Your task to perform on an android device: turn off translation in the chrome app Image 0: 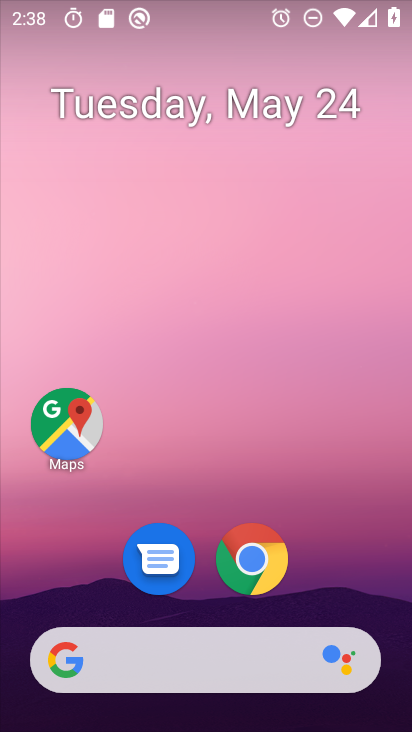
Step 0: click (246, 559)
Your task to perform on an android device: turn off translation in the chrome app Image 1: 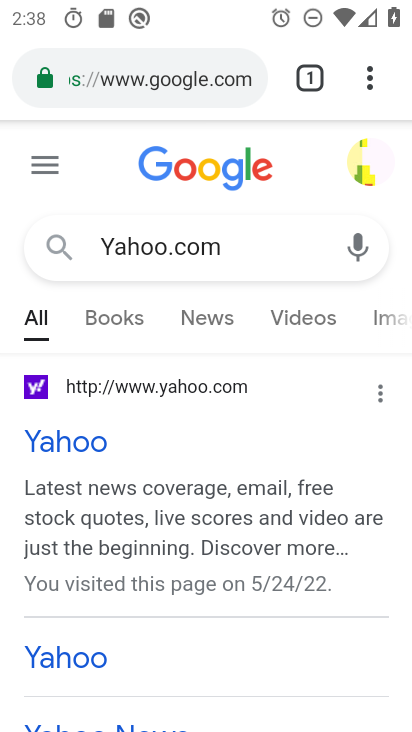
Step 1: click (372, 67)
Your task to perform on an android device: turn off translation in the chrome app Image 2: 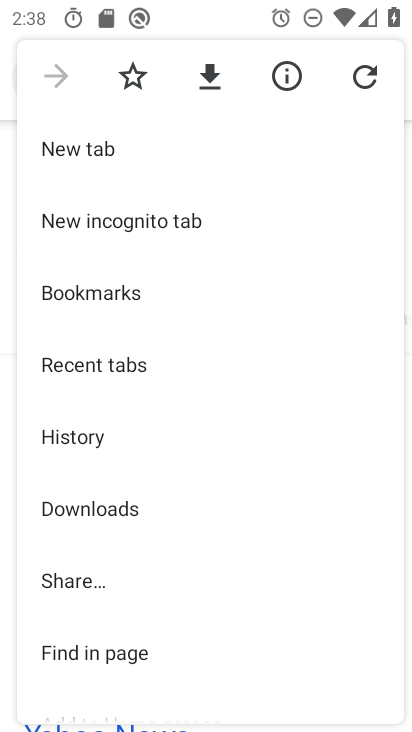
Step 2: drag from (230, 652) to (236, 336)
Your task to perform on an android device: turn off translation in the chrome app Image 3: 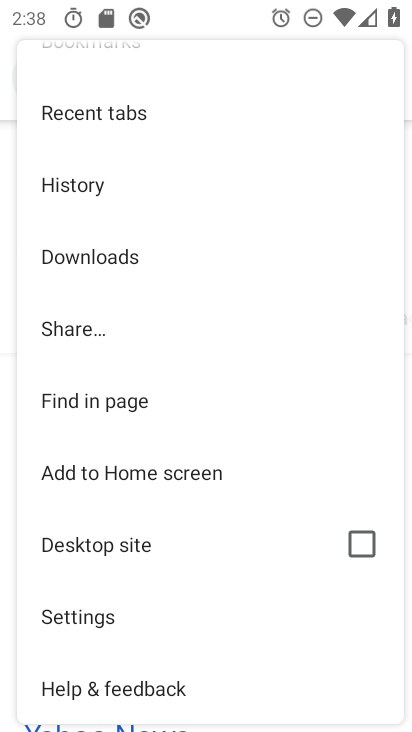
Step 3: drag from (234, 688) to (266, 306)
Your task to perform on an android device: turn off translation in the chrome app Image 4: 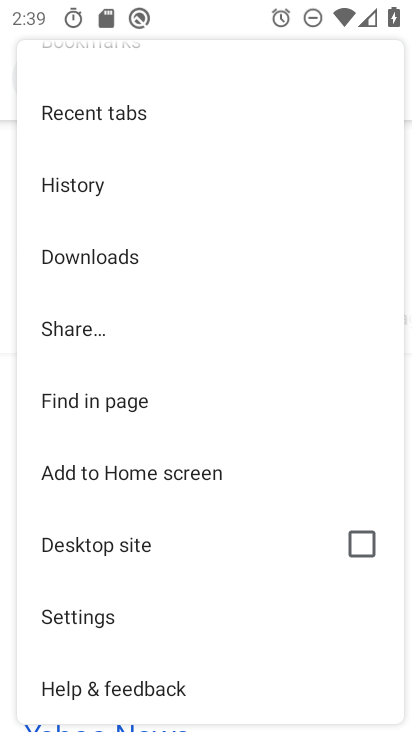
Step 4: click (65, 624)
Your task to perform on an android device: turn off translation in the chrome app Image 5: 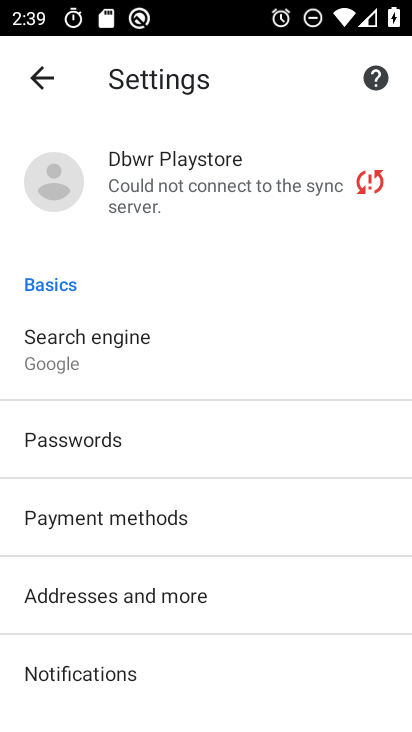
Step 5: drag from (276, 677) to (271, 360)
Your task to perform on an android device: turn off translation in the chrome app Image 6: 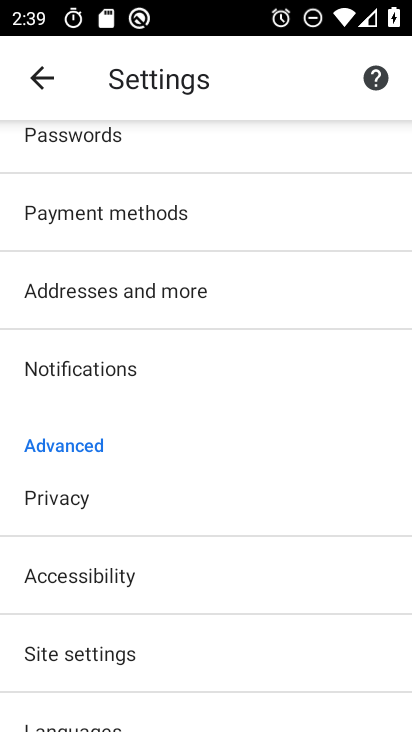
Step 6: drag from (203, 689) to (237, 416)
Your task to perform on an android device: turn off translation in the chrome app Image 7: 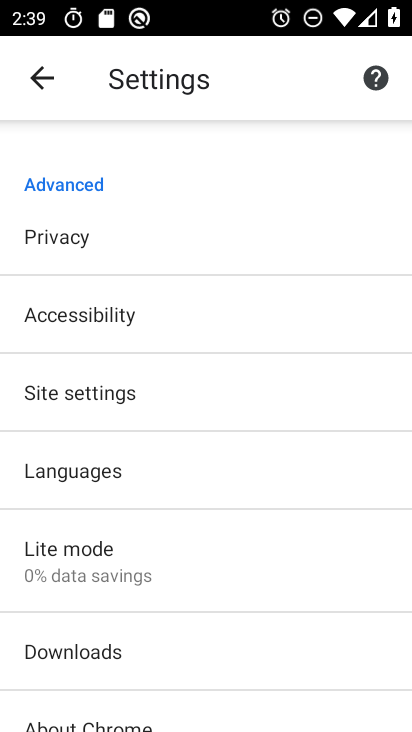
Step 7: click (68, 474)
Your task to perform on an android device: turn off translation in the chrome app Image 8: 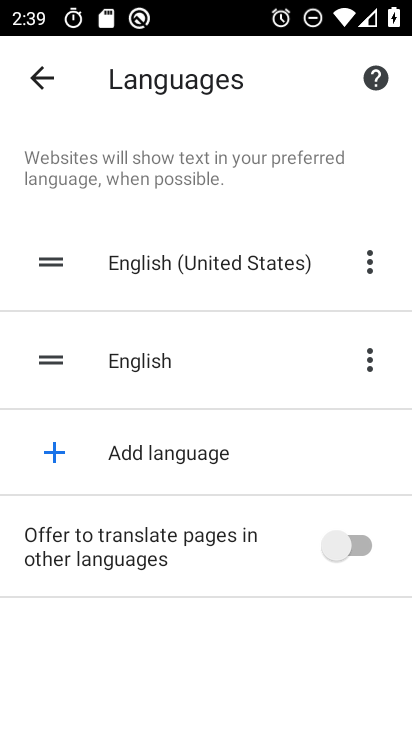
Step 8: task complete